Your task to perform on an android device: Open Google Image 0: 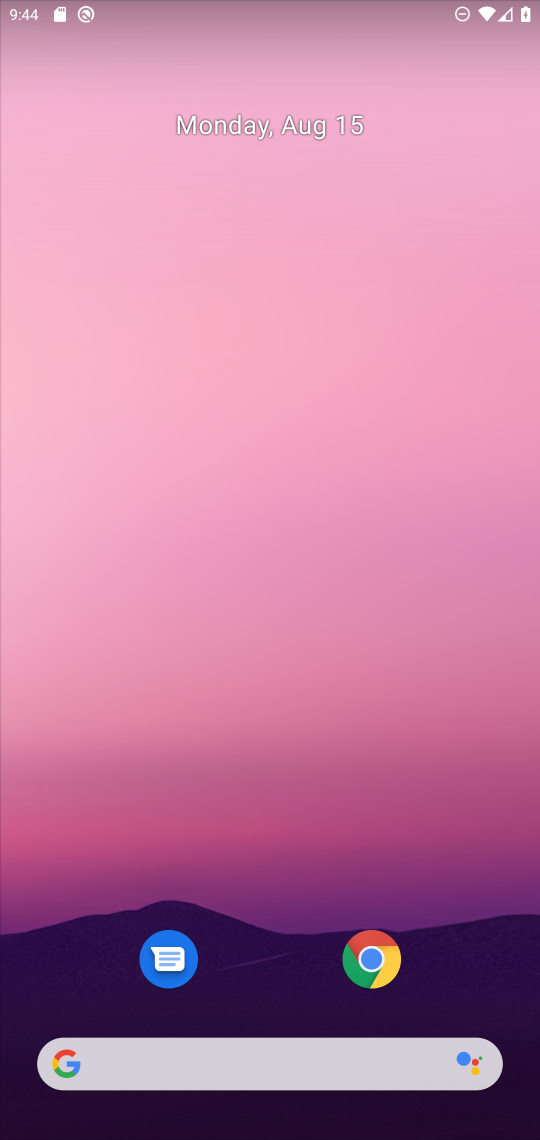
Step 0: drag from (284, 1035) to (215, 61)
Your task to perform on an android device: Open Google Image 1: 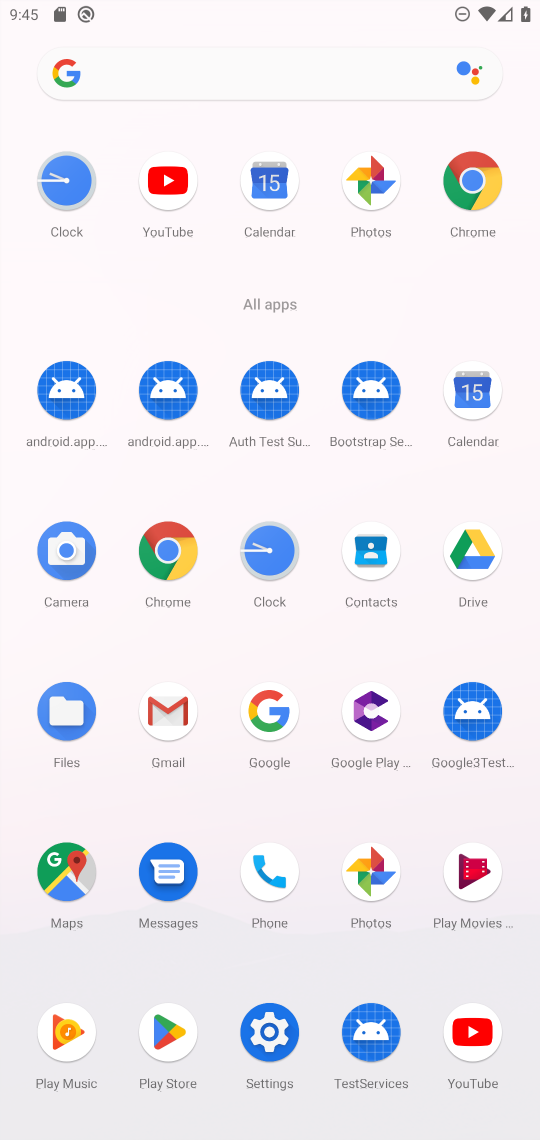
Step 1: click (268, 705)
Your task to perform on an android device: Open Google Image 2: 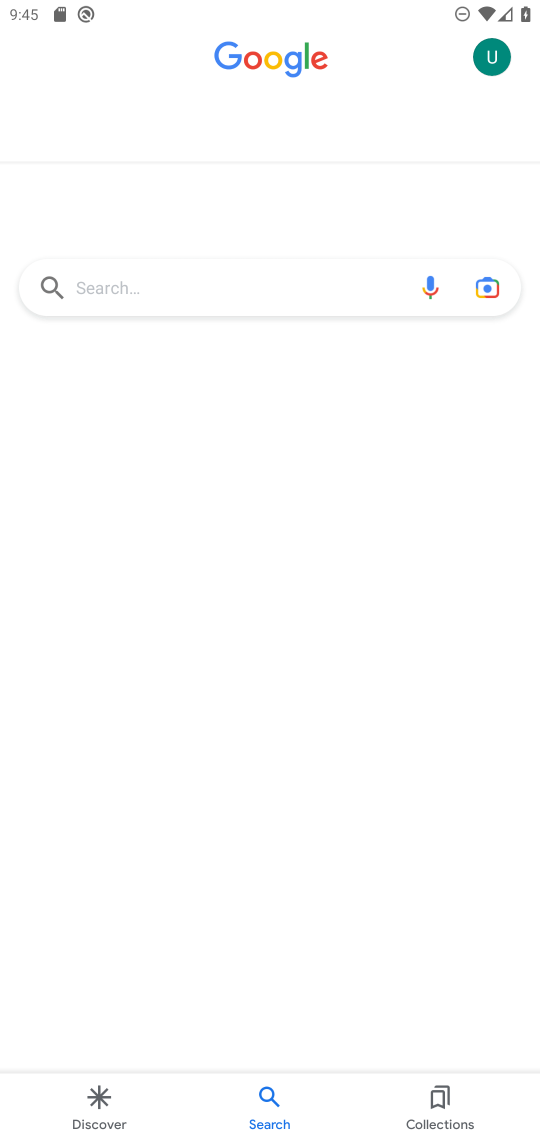
Step 2: click (158, 281)
Your task to perform on an android device: Open Google Image 3: 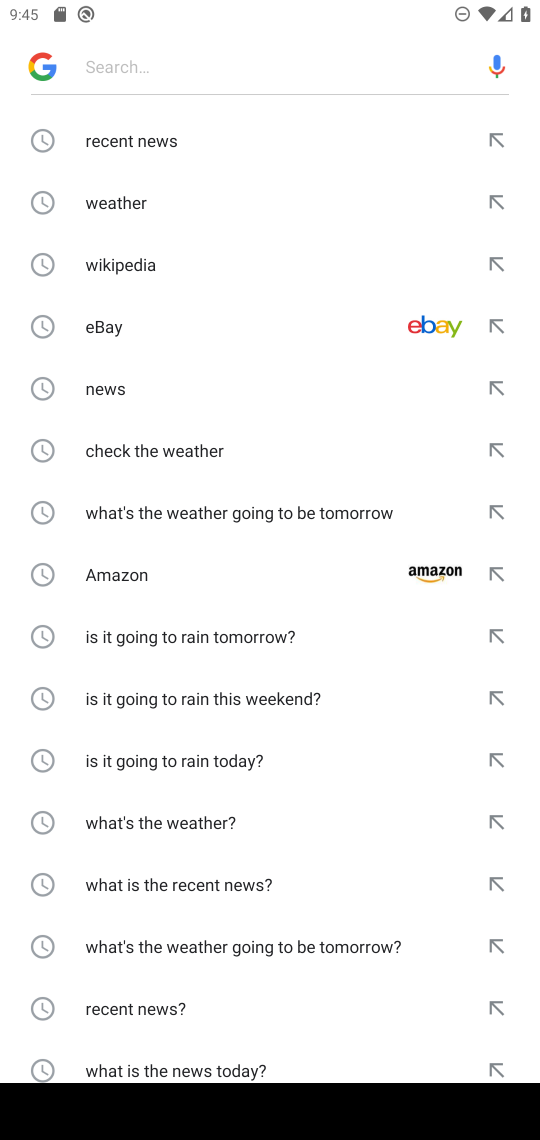
Step 3: task complete